Your task to perform on an android device: see creations saved in the google photos Image 0: 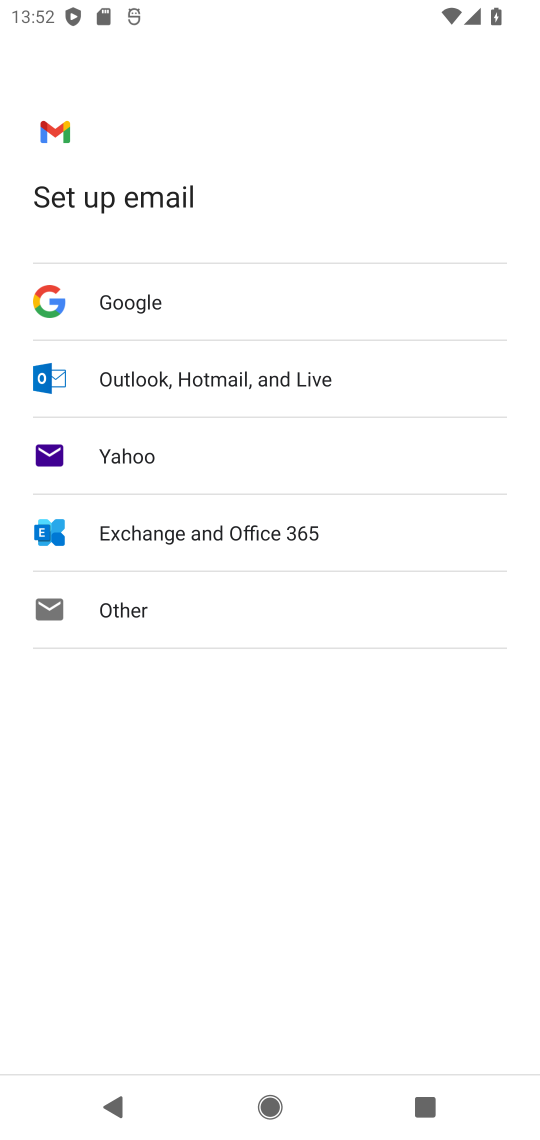
Step 0: press home button
Your task to perform on an android device: see creations saved in the google photos Image 1: 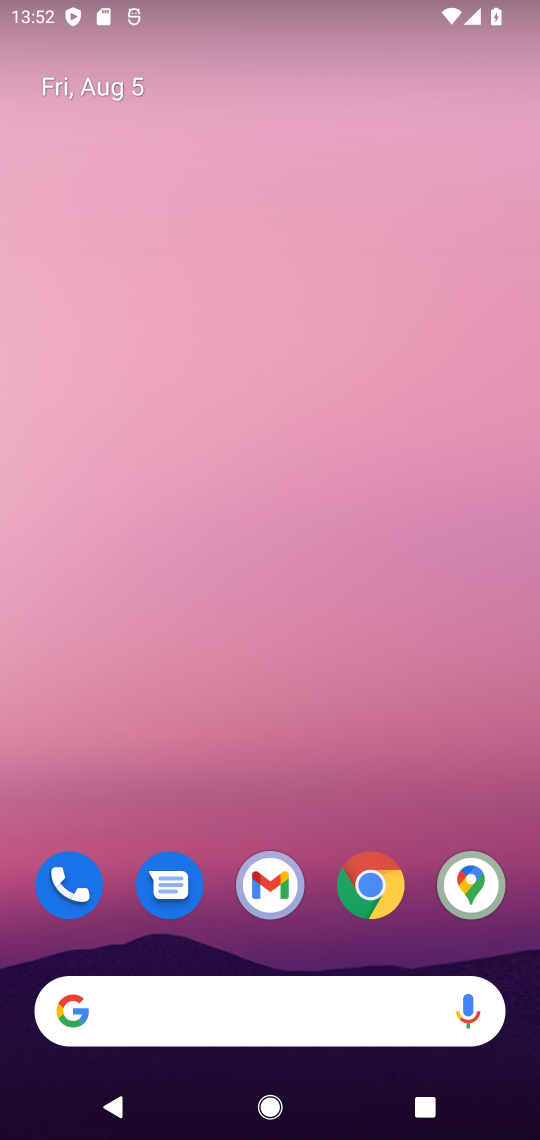
Step 1: drag from (240, 759) to (234, 260)
Your task to perform on an android device: see creations saved in the google photos Image 2: 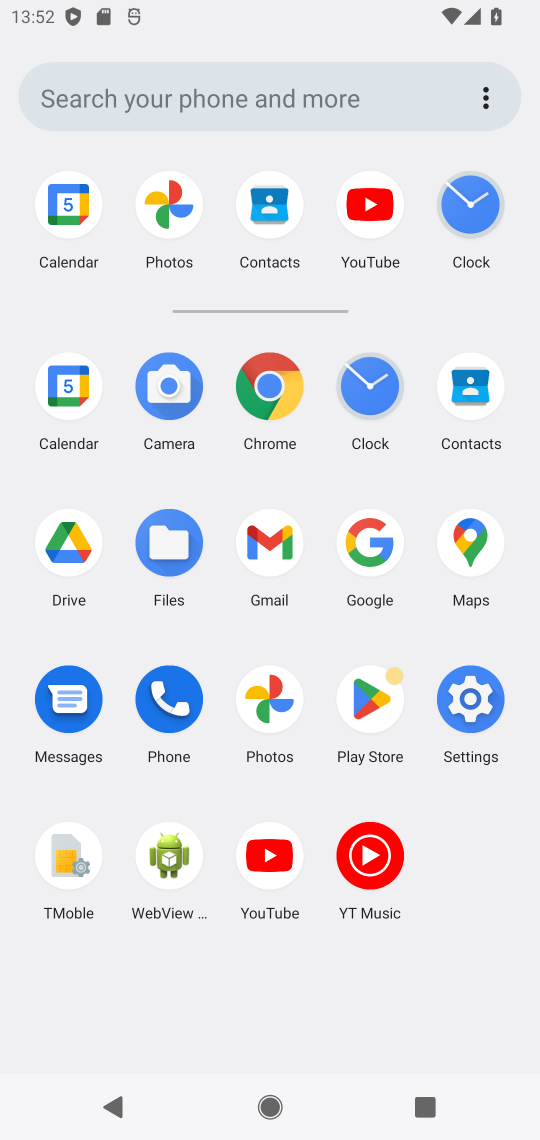
Step 2: click (267, 691)
Your task to perform on an android device: see creations saved in the google photos Image 3: 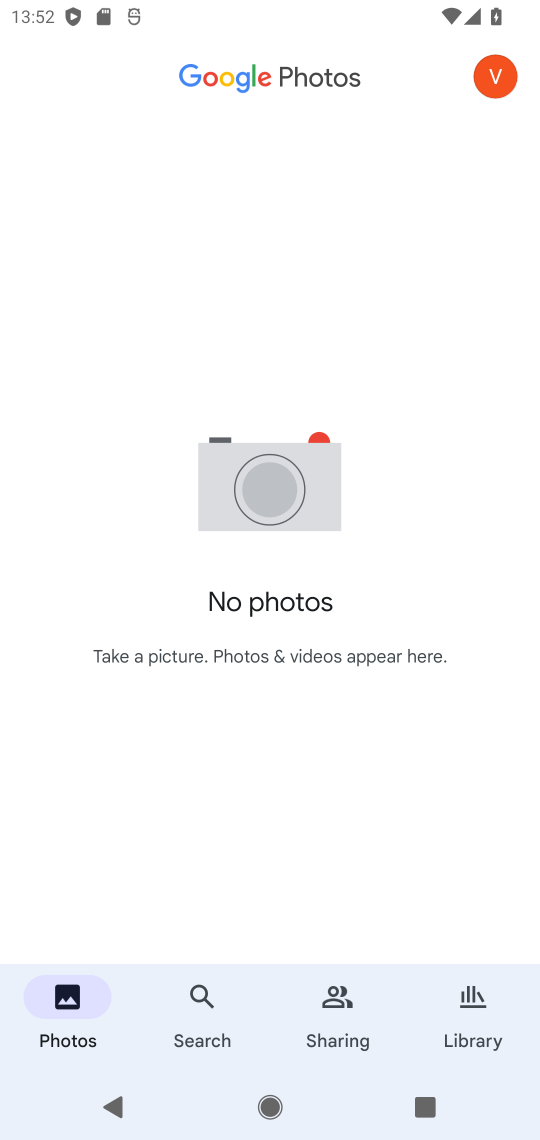
Step 3: click (466, 1042)
Your task to perform on an android device: see creations saved in the google photos Image 4: 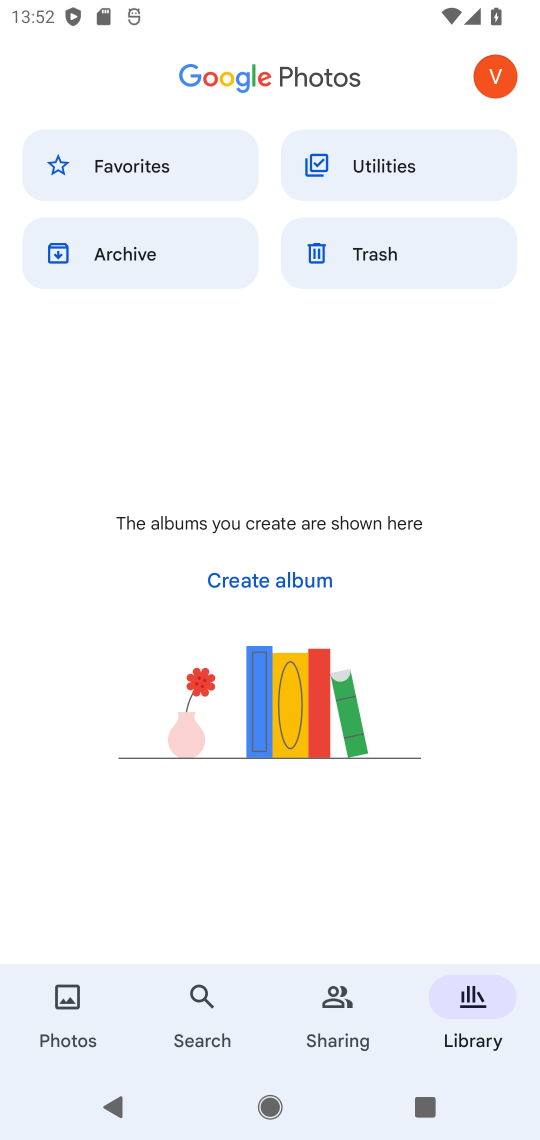
Step 4: click (183, 1016)
Your task to perform on an android device: see creations saved in the google photos Image 5: 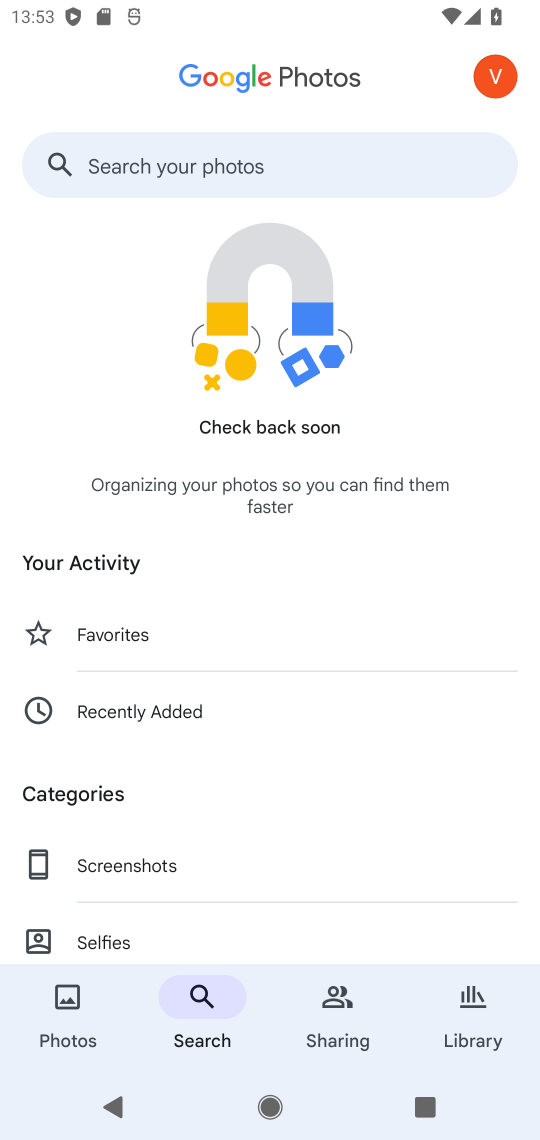
Step 5: drag from (204, 872) to (191, 523)
Your task to perform on an android device: see creations saved in the google photos Image 6: 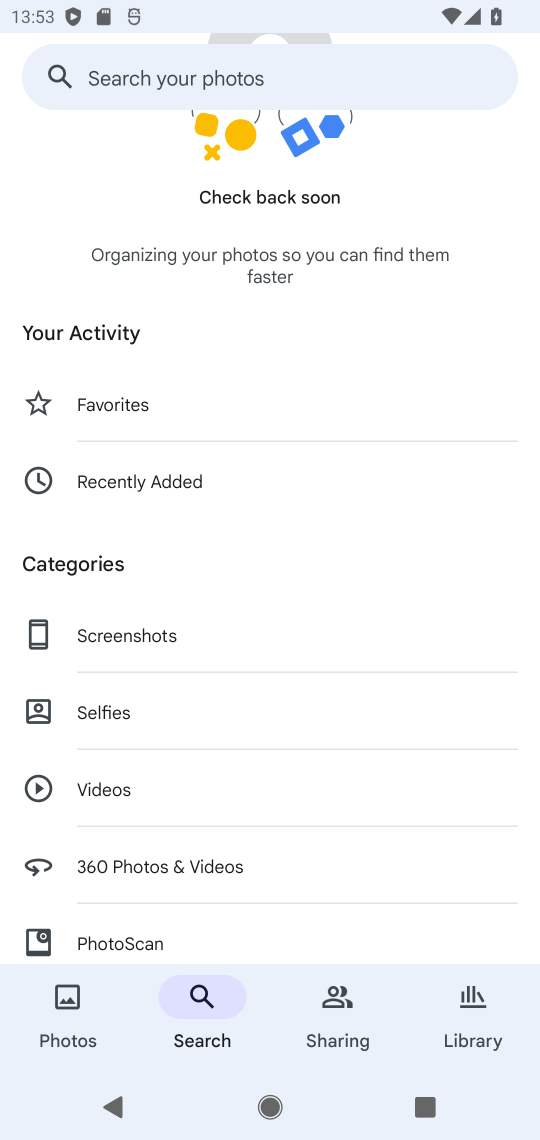
Step 6: drag from (203, 582) to (203, 360)
Your task to perform on an android device: see creations saved in the google photos Image 7: 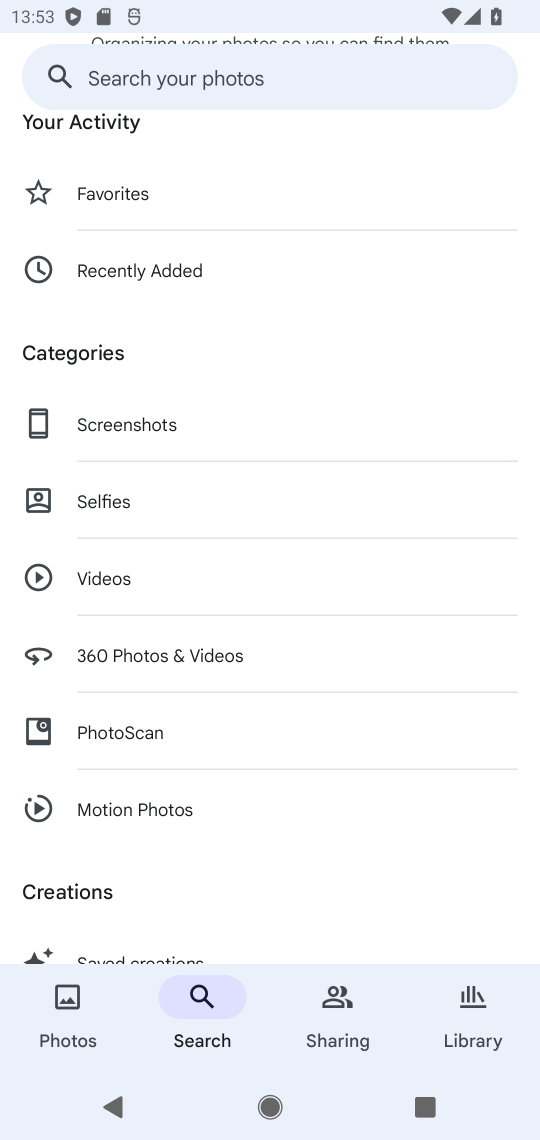
Step 7: drag from (184, 861) to (209, 653)
Your task to perform on an android device: see creations saved in the google photos Image 8: 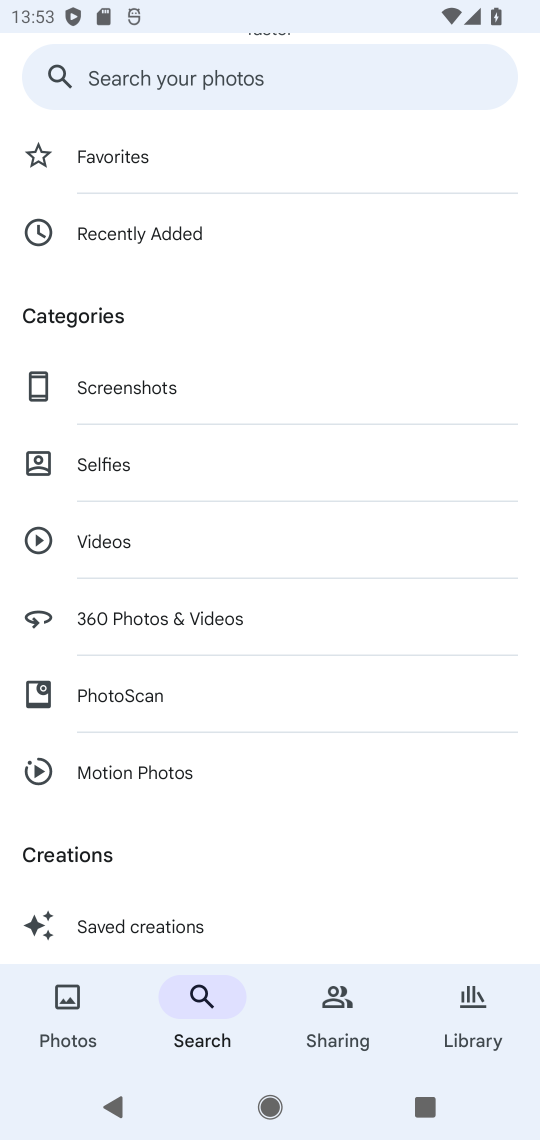
Step 8: click (151, 915)
Your task to perform on an android device: see creations saved in the google photos Image 9: 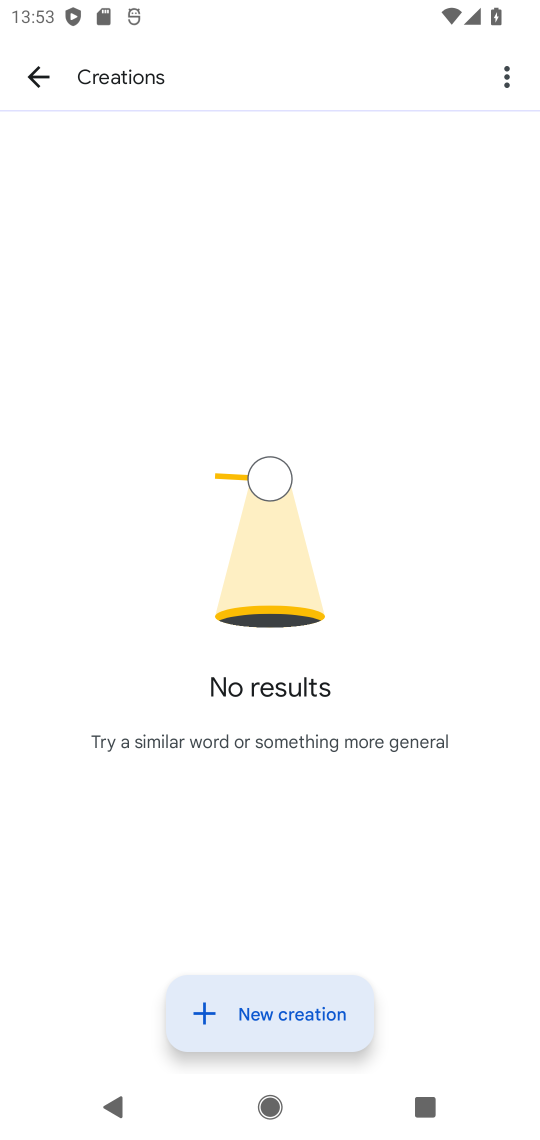
Step 9: task complete